Your task to perform on an android device: Open the stopwatch Image 0: 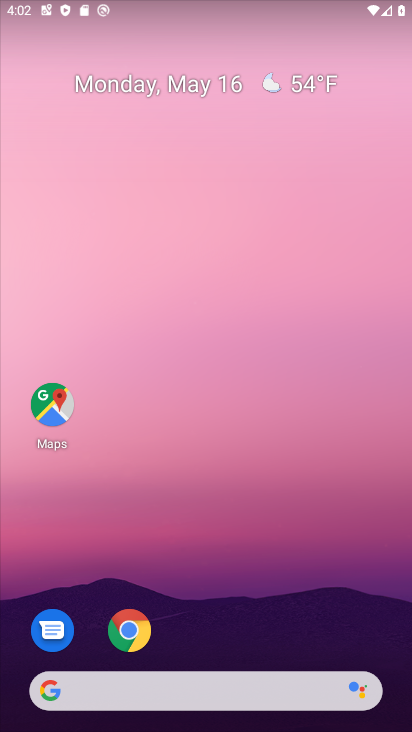
Step 0: drag from (220, 632) to (219, 66)
Your task to perform on an android device: Open the stopwatch Image 1: 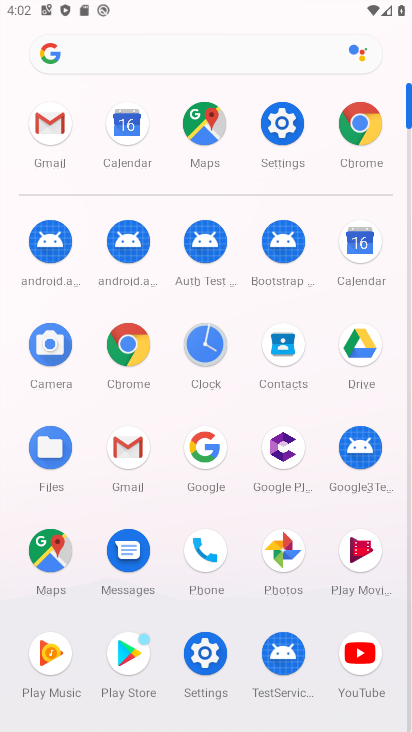
Step 1: click (193, 355)
Your task to perform on an android device: Open the stopwatch Image 2: 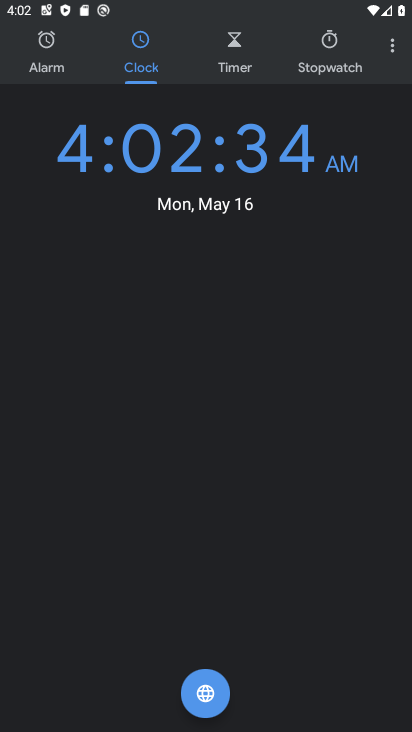
Step 2: click (341, 41)
Your task to perform on an android device: Open the stopwatch Image 3: 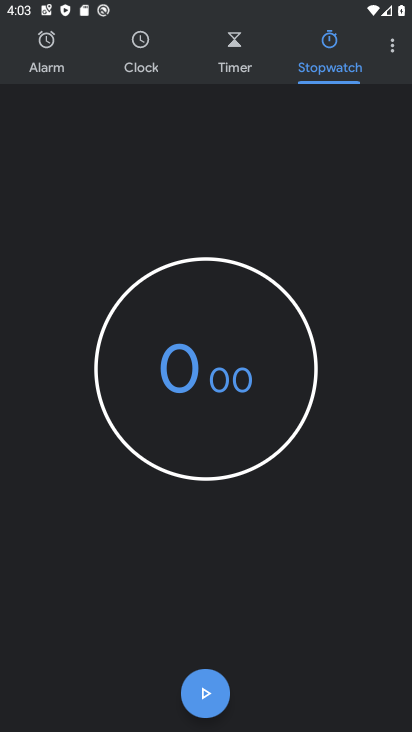
Step 3: task complete